Your task to perform on an android device: set an alarm Image 0: 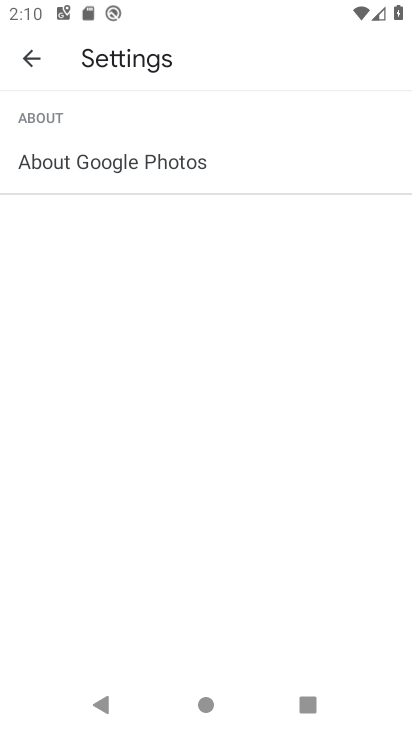
Step 0: press home button
Your task to perform on an android device: set an alarm Image 1: 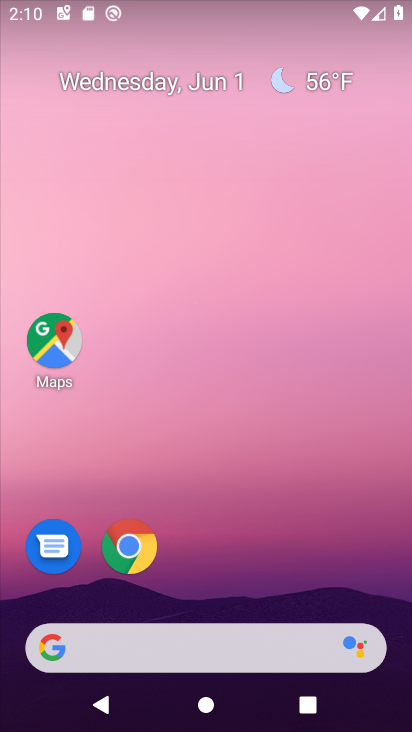
Step 1: drag from (169, 729) to (171, 156)
Your task to perform on an android device: set an alarm Image 2: 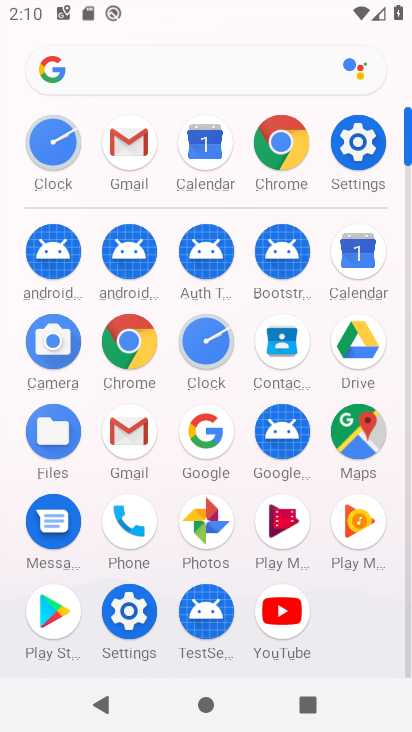
Step 2: click (57, 154)
Your task to perform on an android device: set an alarm Image 3: 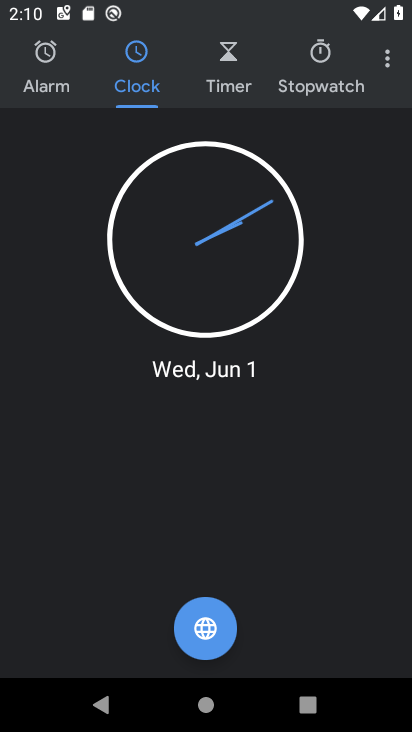
Step 3: click (62, 84)
Your task to perform on an android device: set an alarm Image 4: 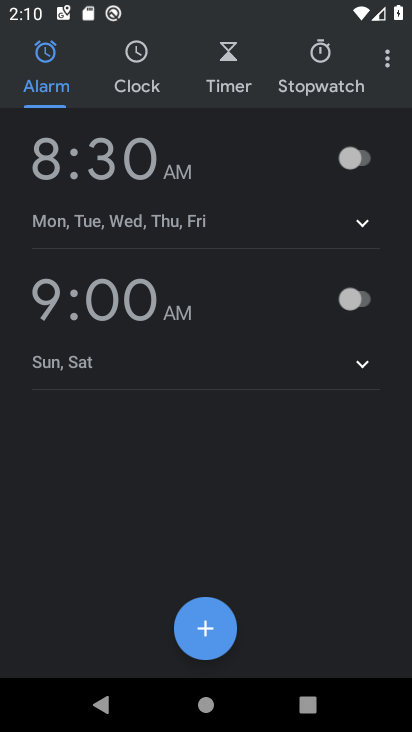
Step 4: click (363, 163)
Your task to perform on an android device: set an alarm Image 5: 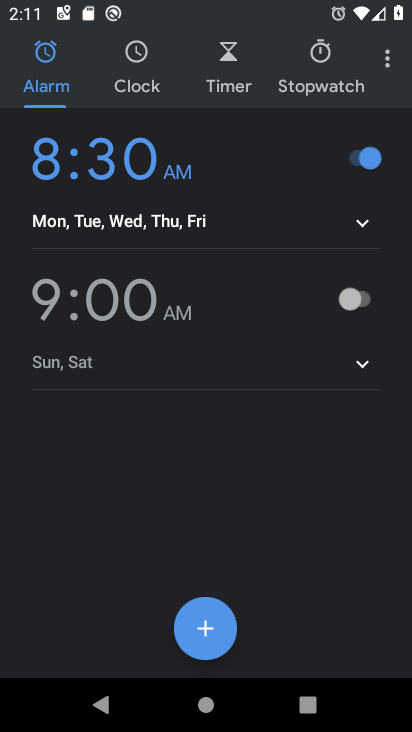
Step 5: task complete